Your task to perform on an android device: Open Reddit.com Image 0: 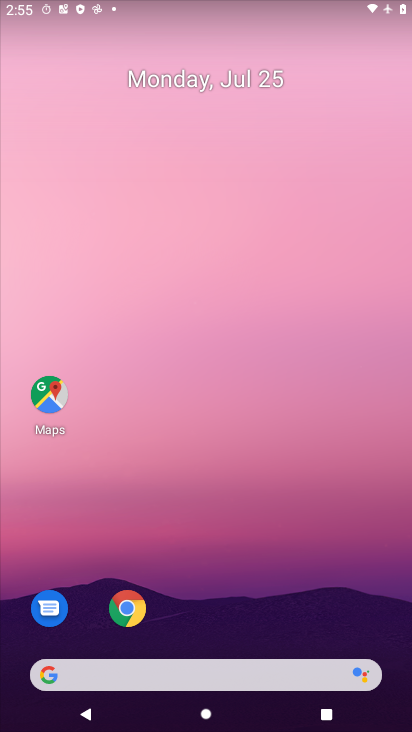
Step 0: drag from (240, 675) to (228, 158)
Your task to perform on an android device: Open Reddit.com Image 1: 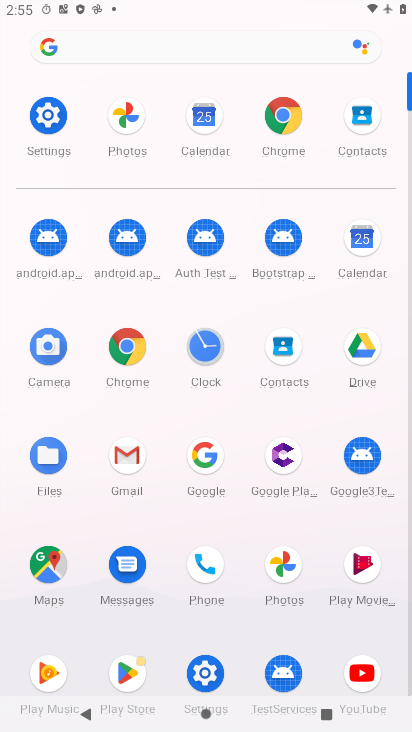
Step 1: click (132, 365)
Your task to perform on an android device: Open Reddit.com Image 2: 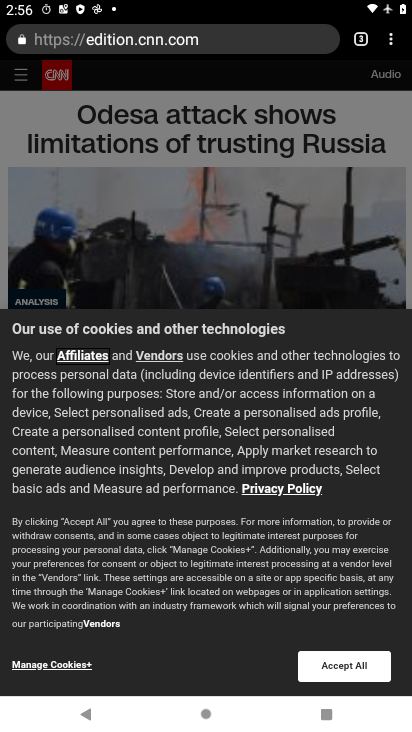
Step 2: click (149, 45)
Your task to perform on an android device: Open Reddit.com Image 3: 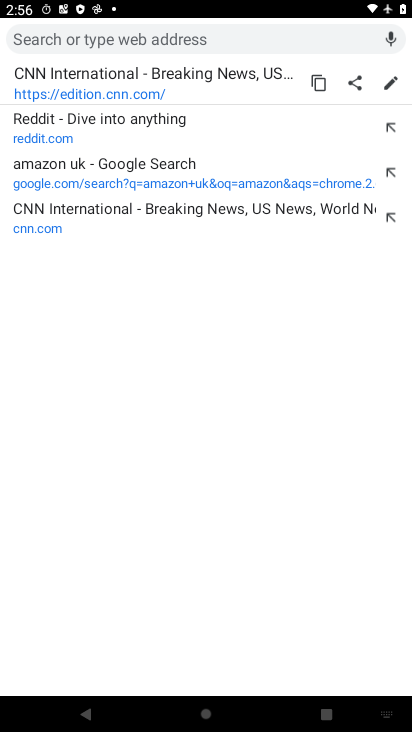
Step 3: type "reddit"
Your task to perform on an android device: Open Reddit.com Image 4: 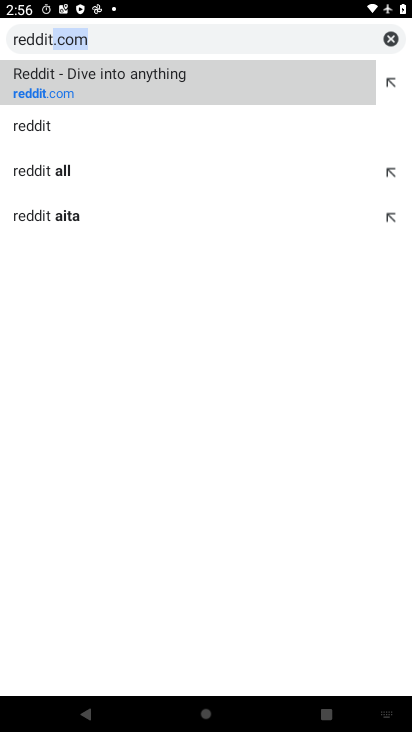
Step 4: click (123, 80)
Your task to perform on an android device: Open Reddit.com Image 5: 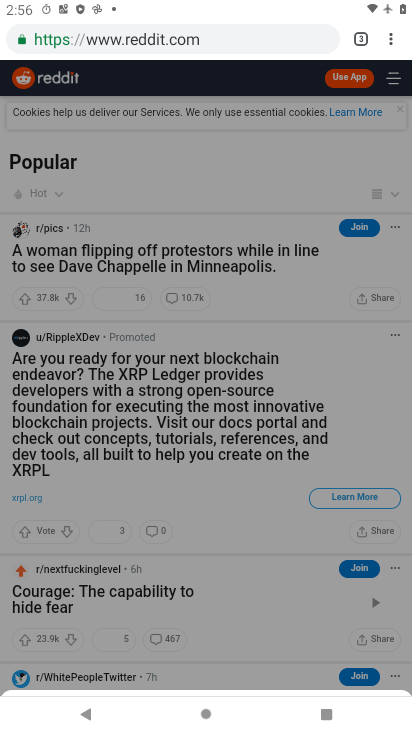
Step 5: task complete